Your task to perform on an android device: turn off sleep mode Image 0: 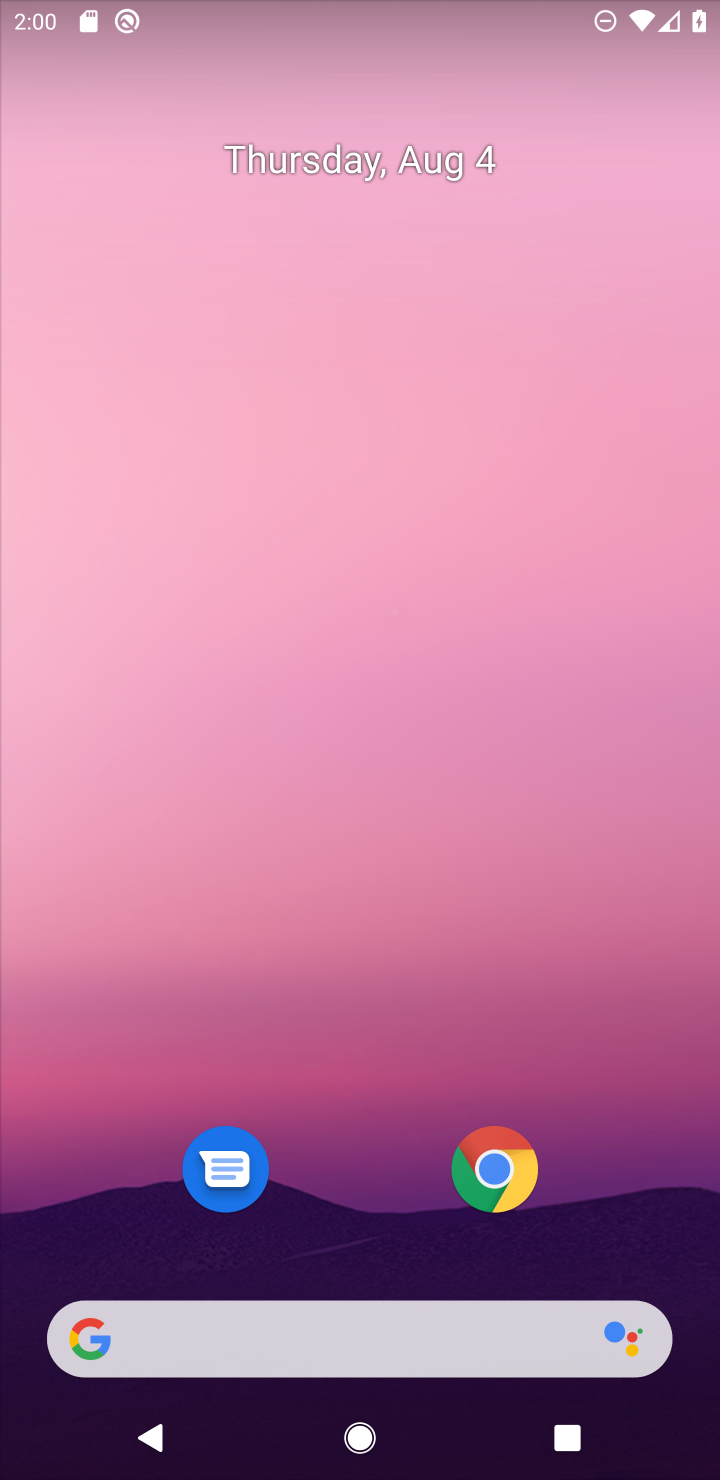
Step 0: drag from (382, 895) to (405, 0)
Your task to perform on an android device: turn off sleep mode Image 1: 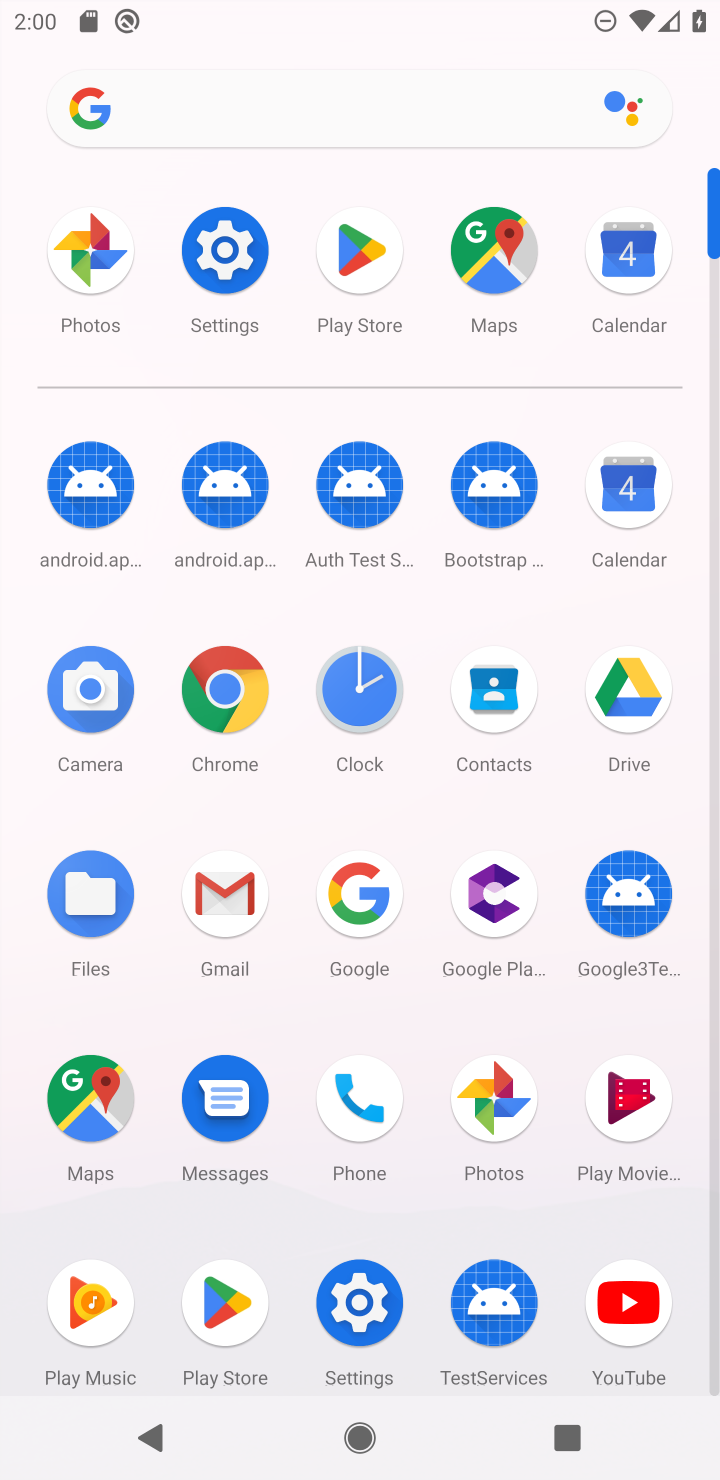
Step 1: click (228, 272)
Your task to perform on an android device: turn off sleep mode Image 2: 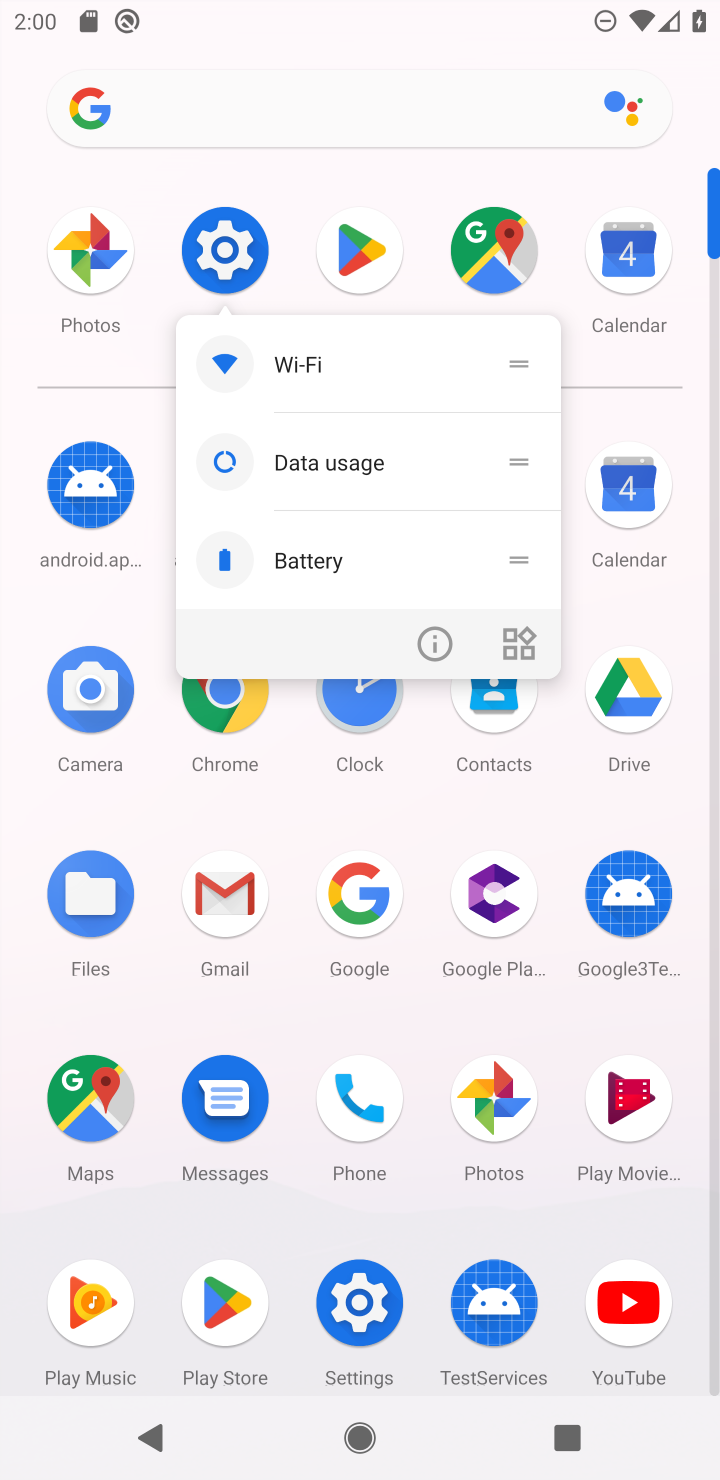
Step 2: click (228, 254)
Your task to perform on an android device: turn off sleep mode Image 3: 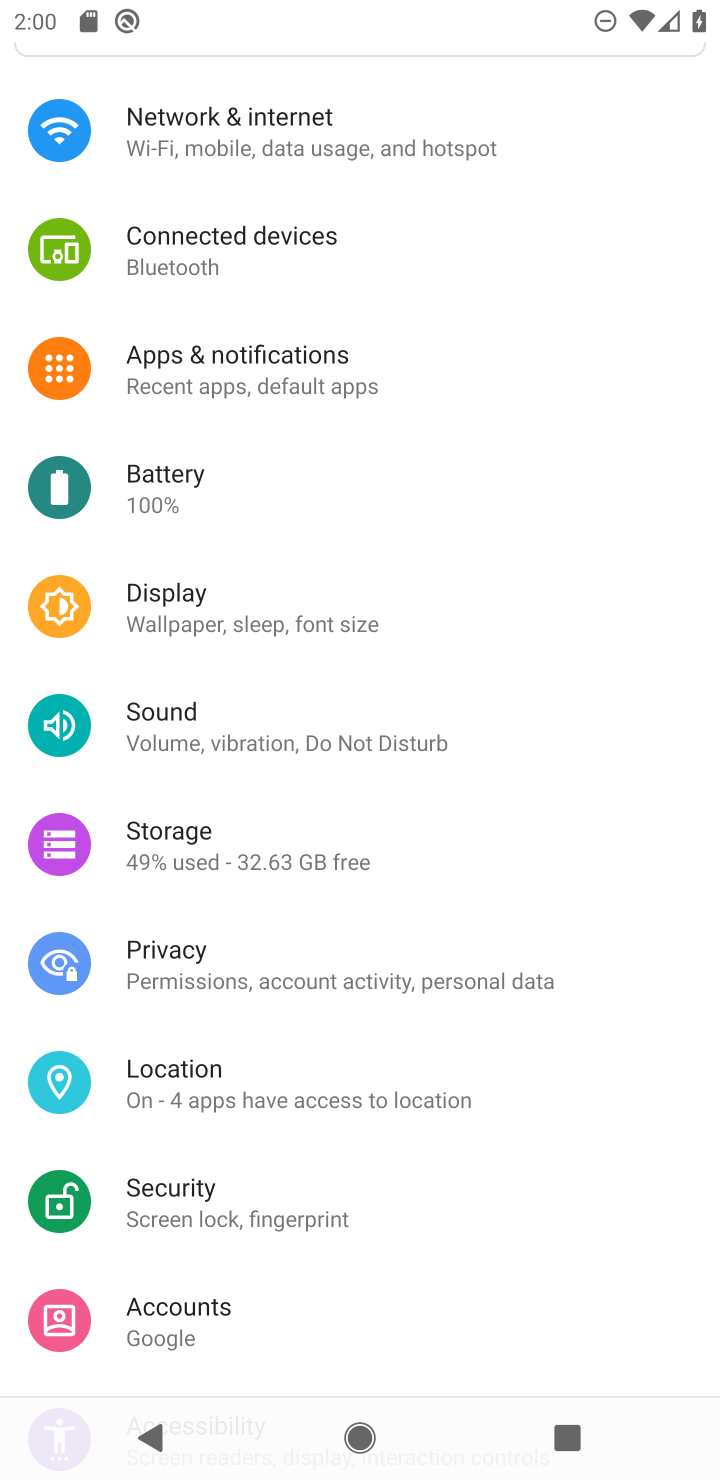
Step 3: click (191, 616)
Your task to perform on an android device: turn off sleep mode Image 4: 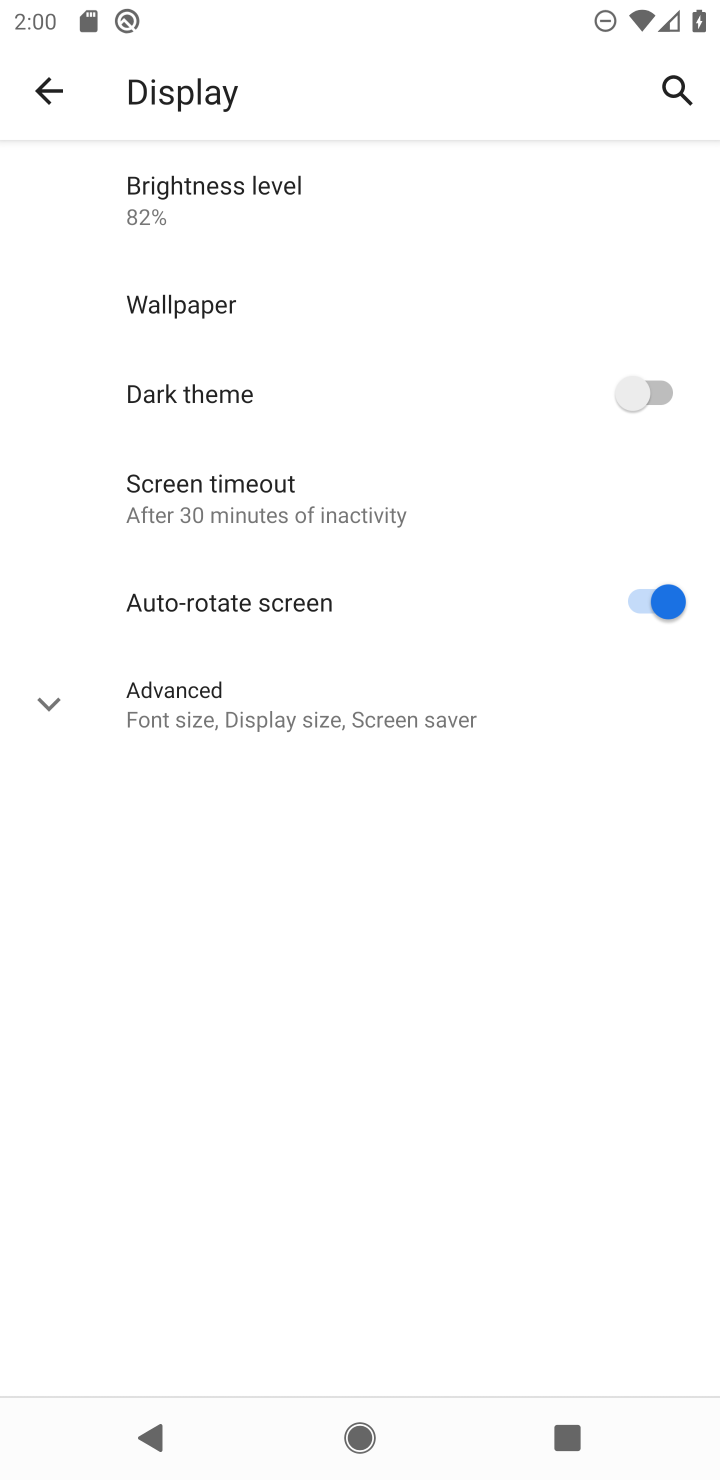
Step 4: click (55, 714)
Your task to perform on an android device: turn off sleep mode Image 5: 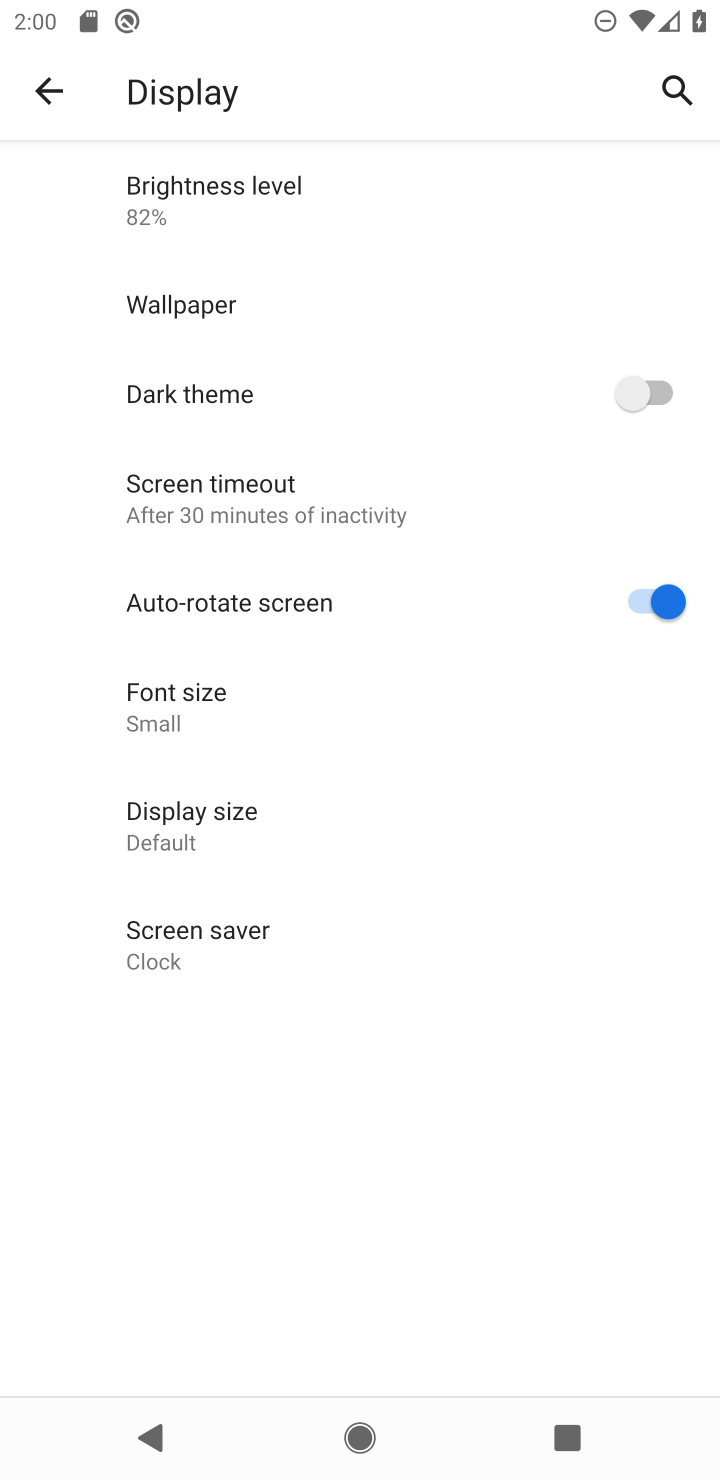
Step 5: task complete